Your task to perform on an android device: open app "Viber Messenger" (install if not already installed), go to login, and select forgot password Image 0: 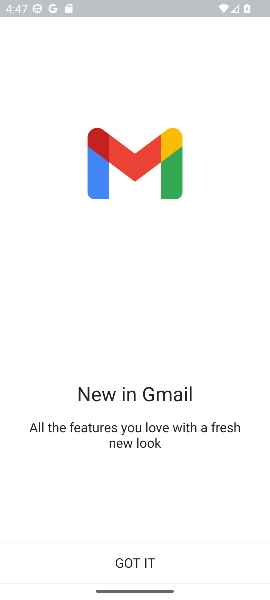
Step 0: press back button
Your task to perform on an android device: open app "Viber Messenger" (install if not already installed), go to login, and select forgot password Image 1: 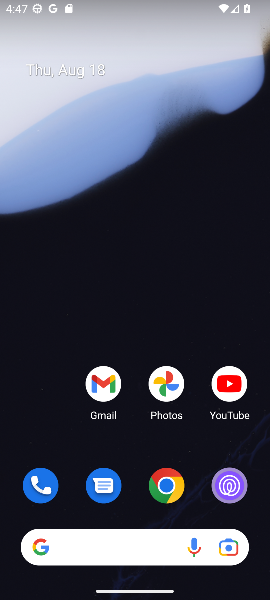
Step 1: drag from (77, 430) to (134, 58)
Your task to perform on an android device: open app "Viber Messenger" (install if not already installed), go to login, and select forgot password Image 2: 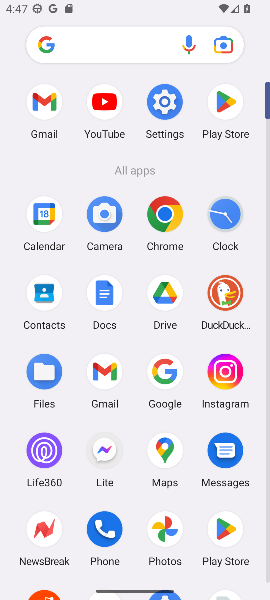
Step 2: click (229, 98)
Your task to perform on an android device: open app "Viber Messenger" (install if not already installed), go to login, and select forgot password Image 3: 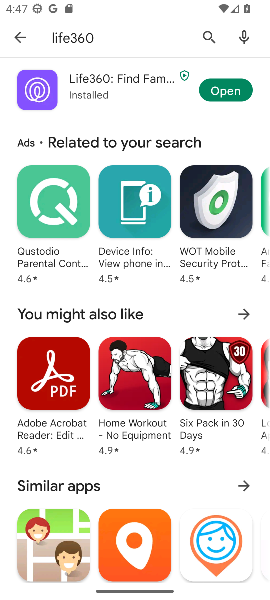
Step 3: click (211, 33)
Your task to perform on an android device: open app "Viber Messenger" (install if not already installed), go to login, and select forgot password Image 4: 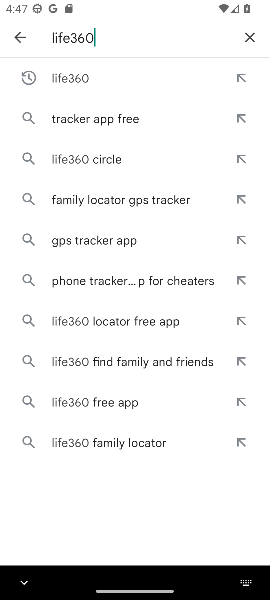
Step 4: click (244, 27)
Your task to perform on an android device: open app "Viber Messenger" (install if not already installed), go to login, and select forgot password Image 5: 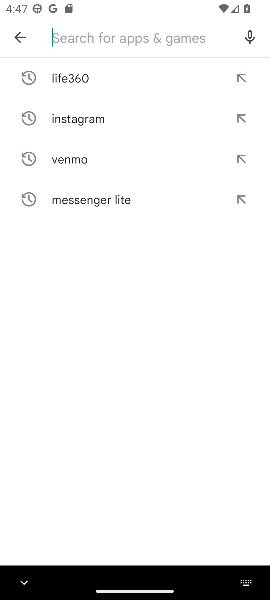
Step 5: click (74, 33)
Your task to perform on an android device: open app "Viber Messenger" (install if not already installed), go to login, and select forgot password Image 6: 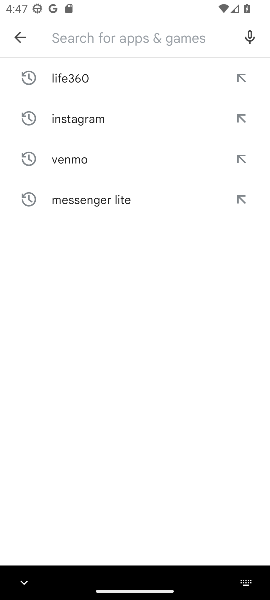
Step 6: type "Viber Messenger"
Your task to perform on an android device: open app "Viber Messenger" (install if not already installed), go to login, and select forgot password Image 7: 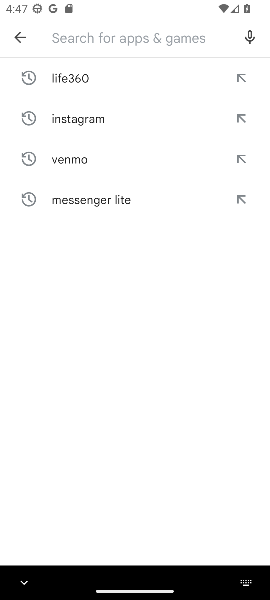
Step 7: click (168, 356)
Your task to perform on an android device: open app "Viber Messenger" (install if not already installed), go to login, and select forgot password Image 8: 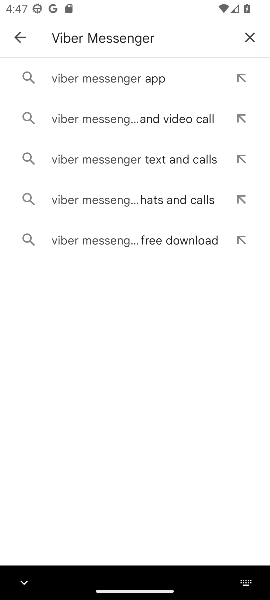
Step 8: click (129, 78)
Your task to perform on an android device: open app "Viber Messenger" (install if not already installed), go to login, and select forgot password Image 9: 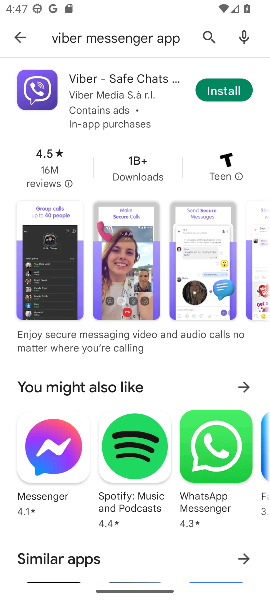
Step 9: click (216, 87)
Your task to perform on an android device: open app "Viber Messenger" (install if not already installed), go to login, and select forgot password Image 10: 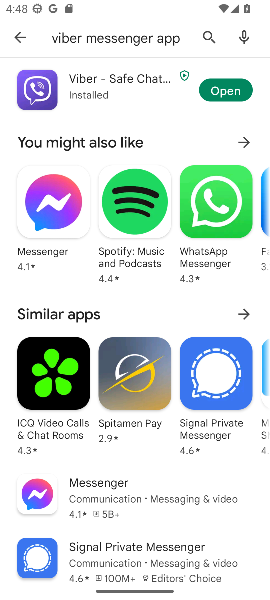
Step 10: click (219, 90)
Your task to perform on an android device: open app "Viber Messenger" (install if not already installed), go to login, and select forgot password Image 11: 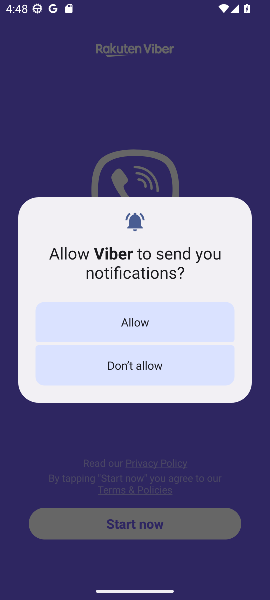
Step 11: click (127, 364)
Your task to perform on an android device: open app "Viber Messenger" (install if not already installed), go to login, and select forgot password Image 12: 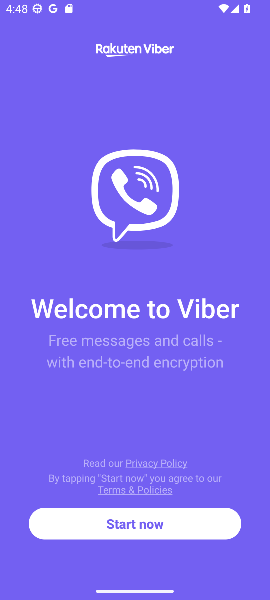
Step 12: click (137, 524)
Your task to perform on an android device: open app "Viber Messenger" (install if not already installed), go to login, and select forgot password Image 13: 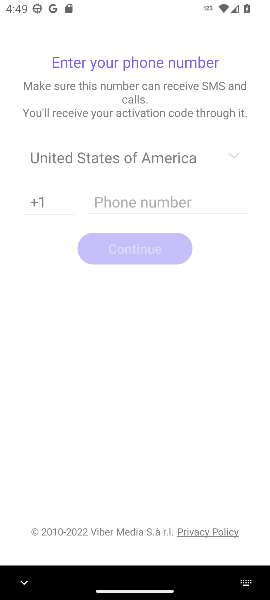
Step 13: click (92, 358)
Your task to perform on an android device: open app "Viber Messenger" (install if not already installed), go to login, and select forgot password Image 14: 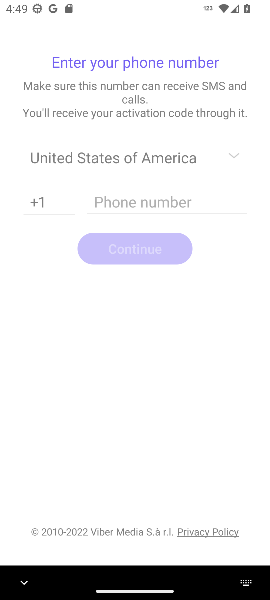
Step 14: task complete